Your task to perform on an android device: open app "VLC for Android" Image 0: 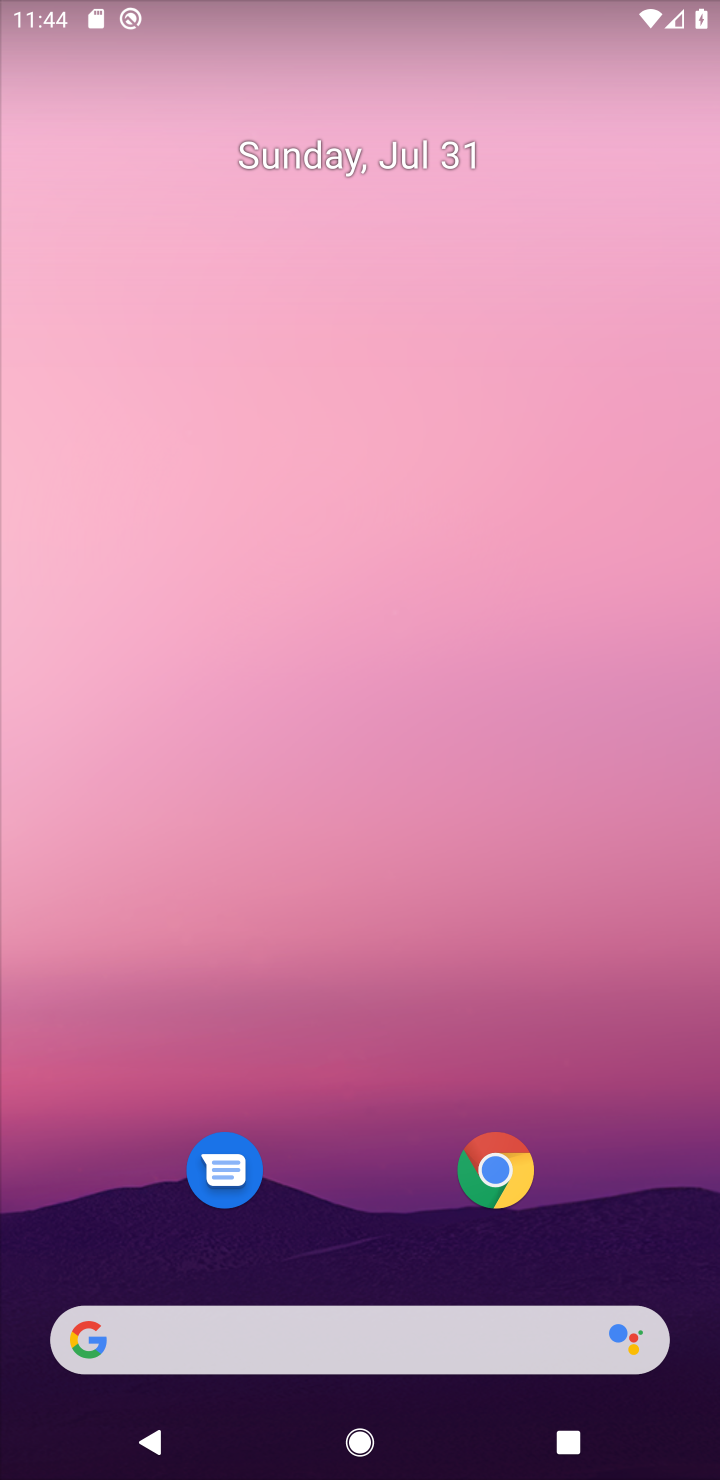
Step 0: drag from (710, 1240) to (447, 173)
Your task to perform on an android device: open app "VLC for Android" Image 1: 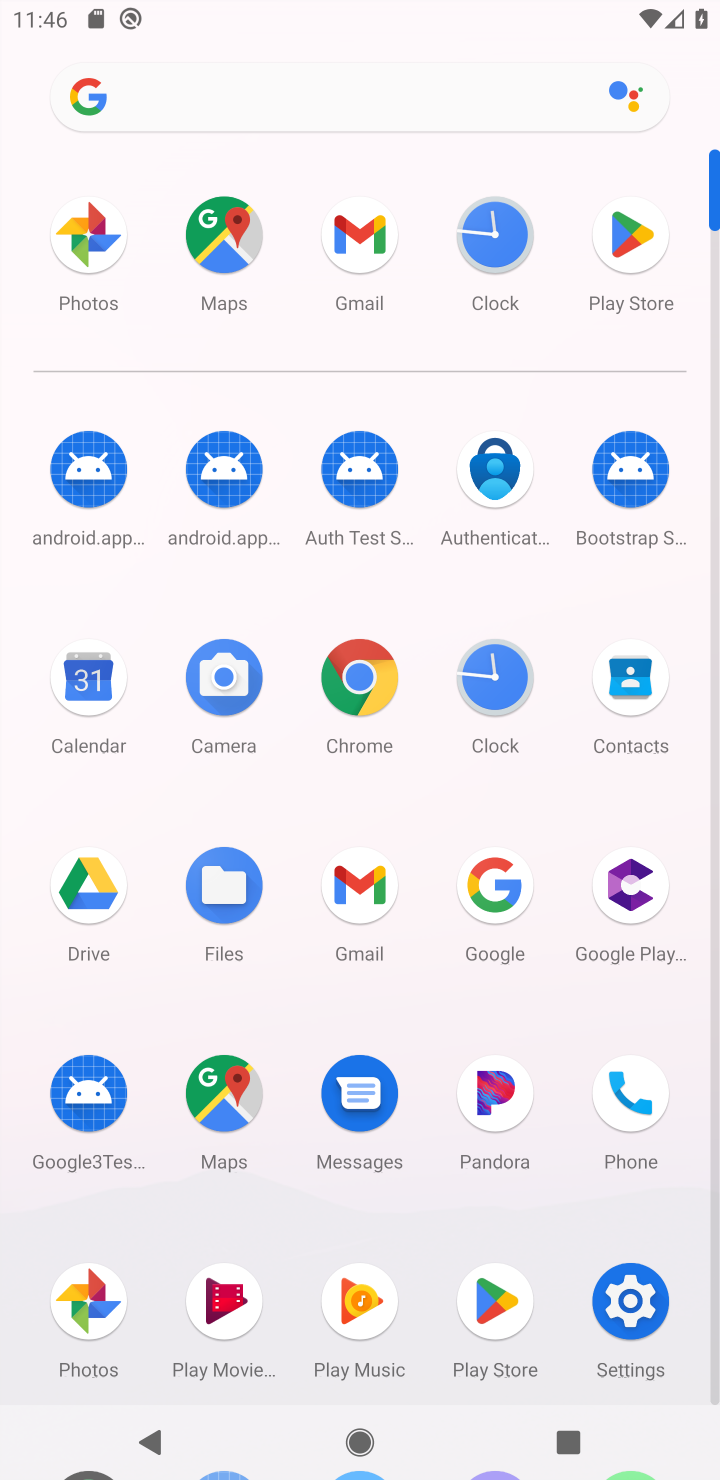
Step 1: click (610, 237)
Your task to perform on an android device: open app "VLC for Android" Image 2: 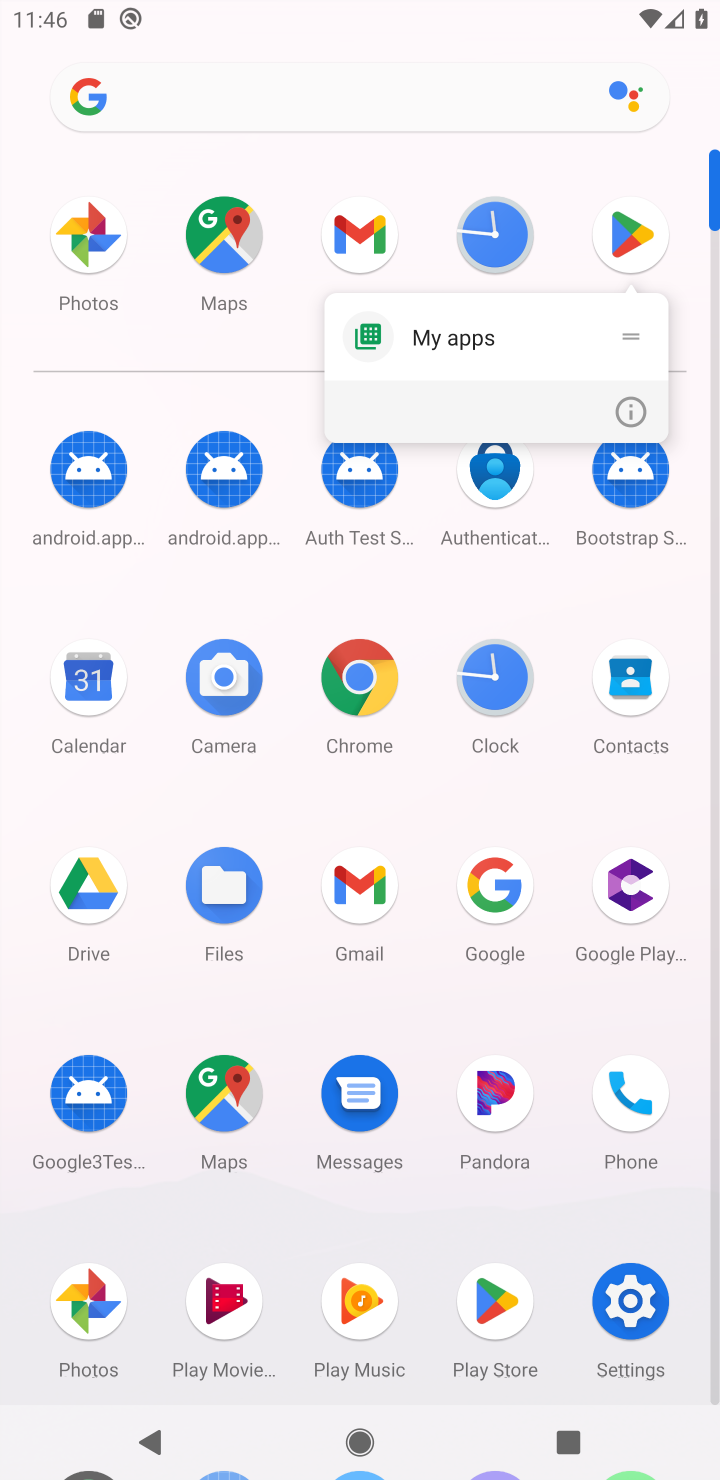
Step 2: click (639, 231)
Your task to perform on an android device: open app "VLC for Android" Image 3: 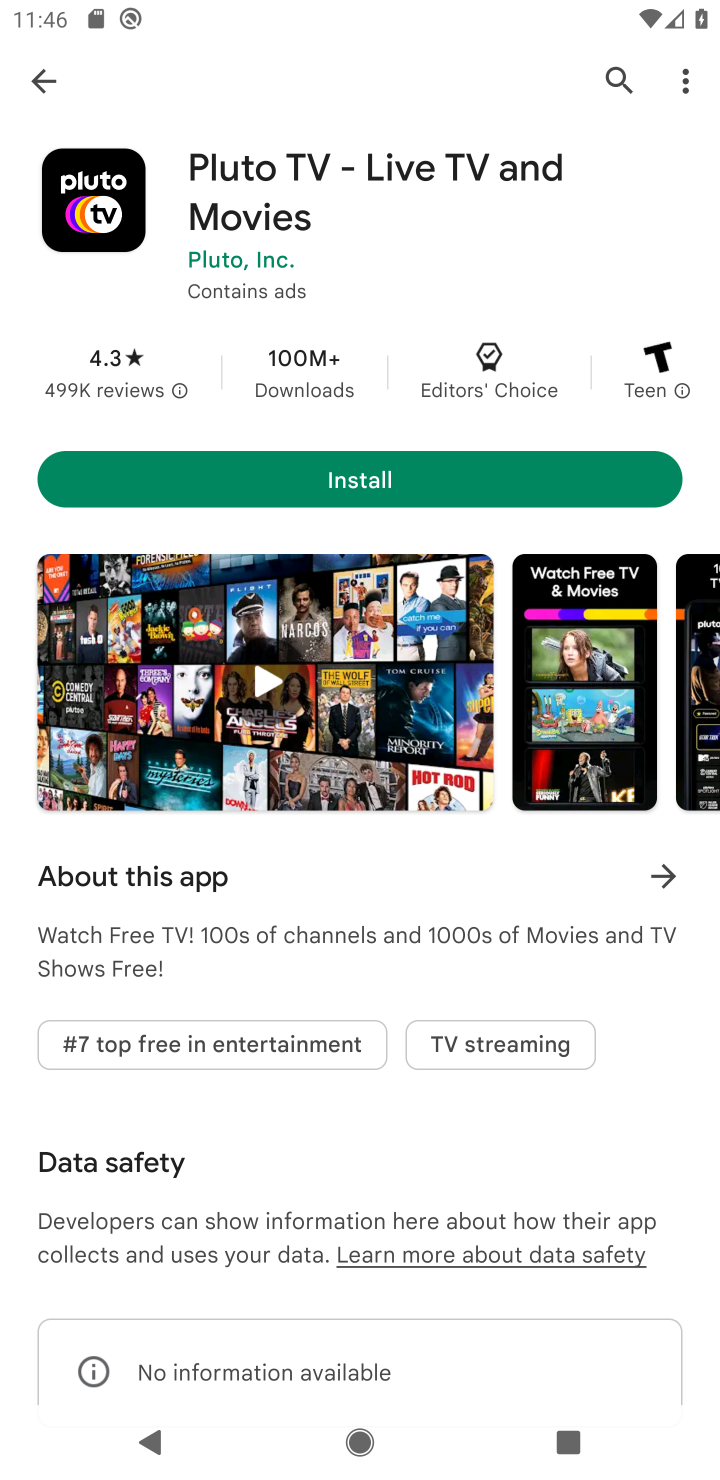
Step 3: press back button
Your task to perform on an android device: open app "VLC for Android" Image 4: 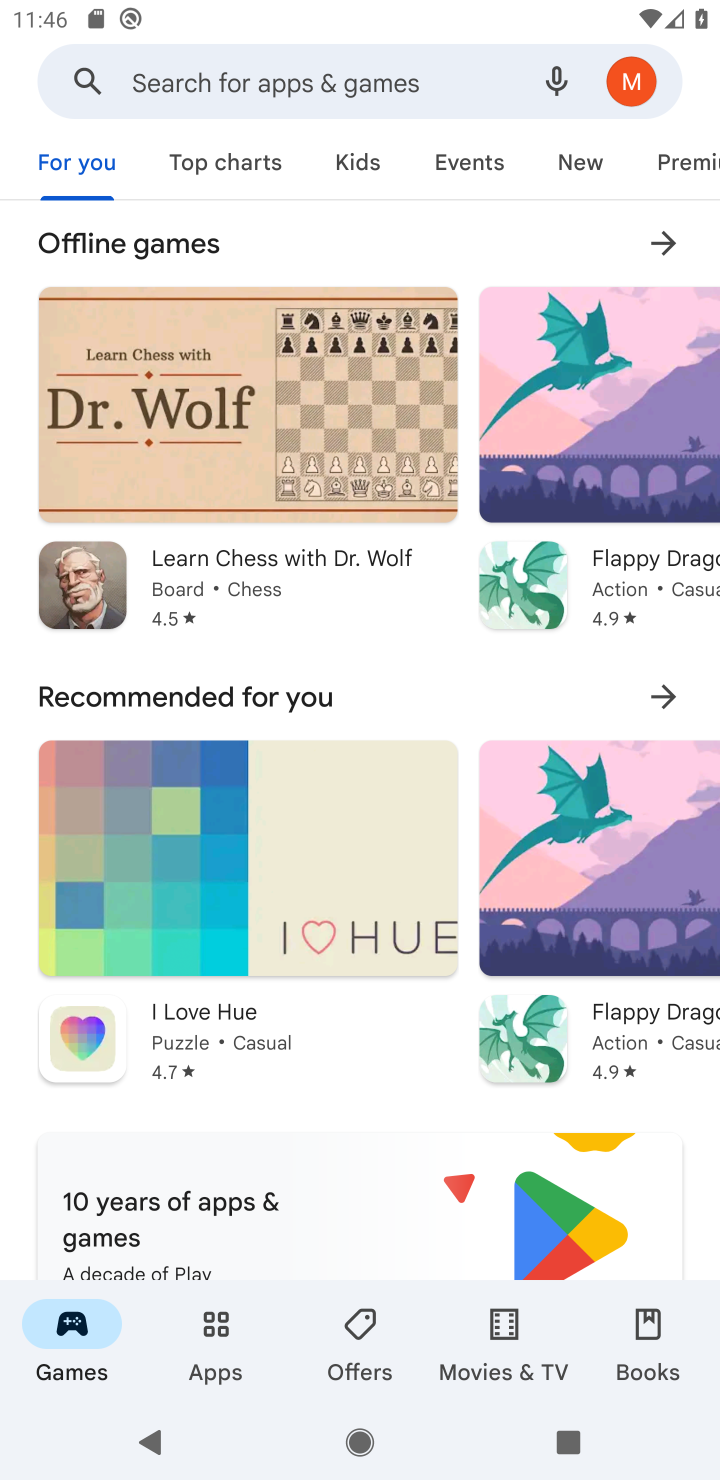
Step 4: click (212, 80)
Your task to perform on an android device: open app "VLC for Android" Image 5: 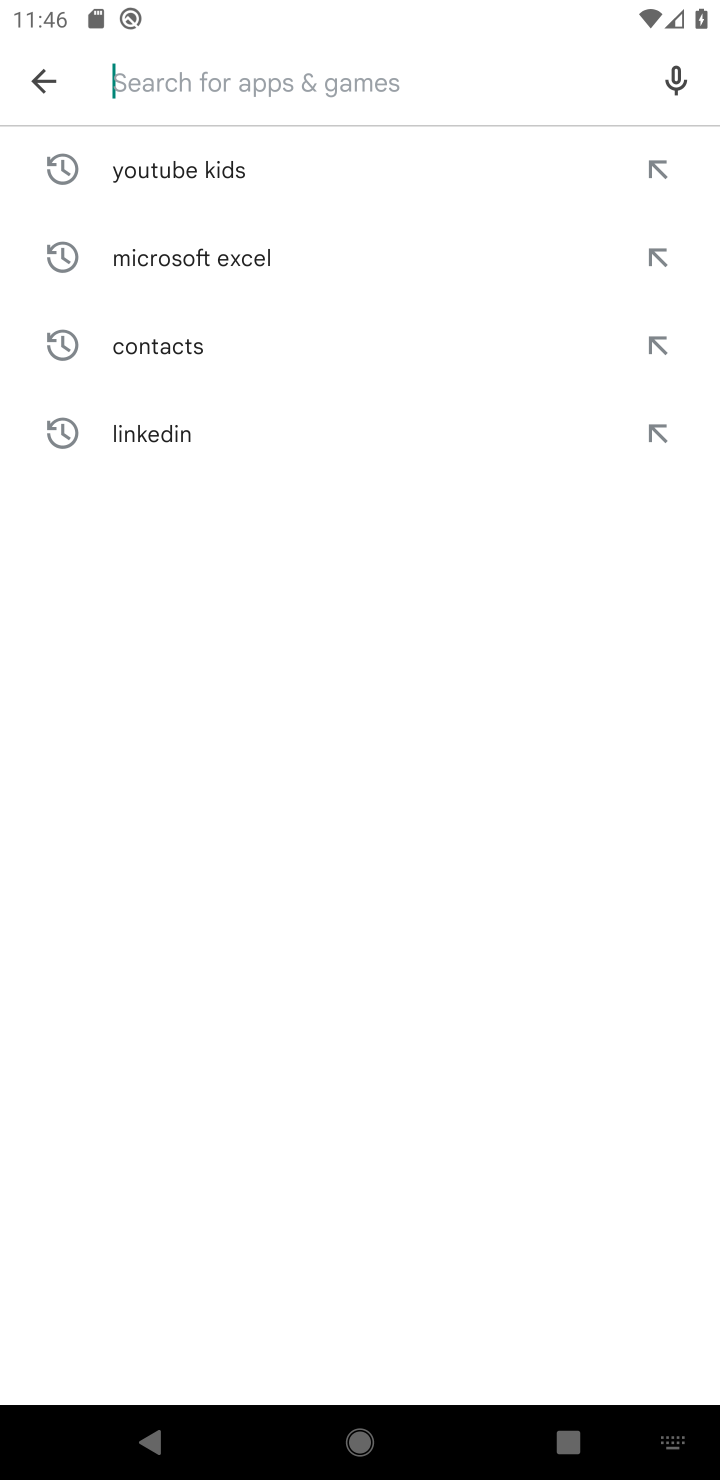
Step 5: type "VLC for Android"
Your task to perform on an android device: open app "VLC for Android" Image 6: 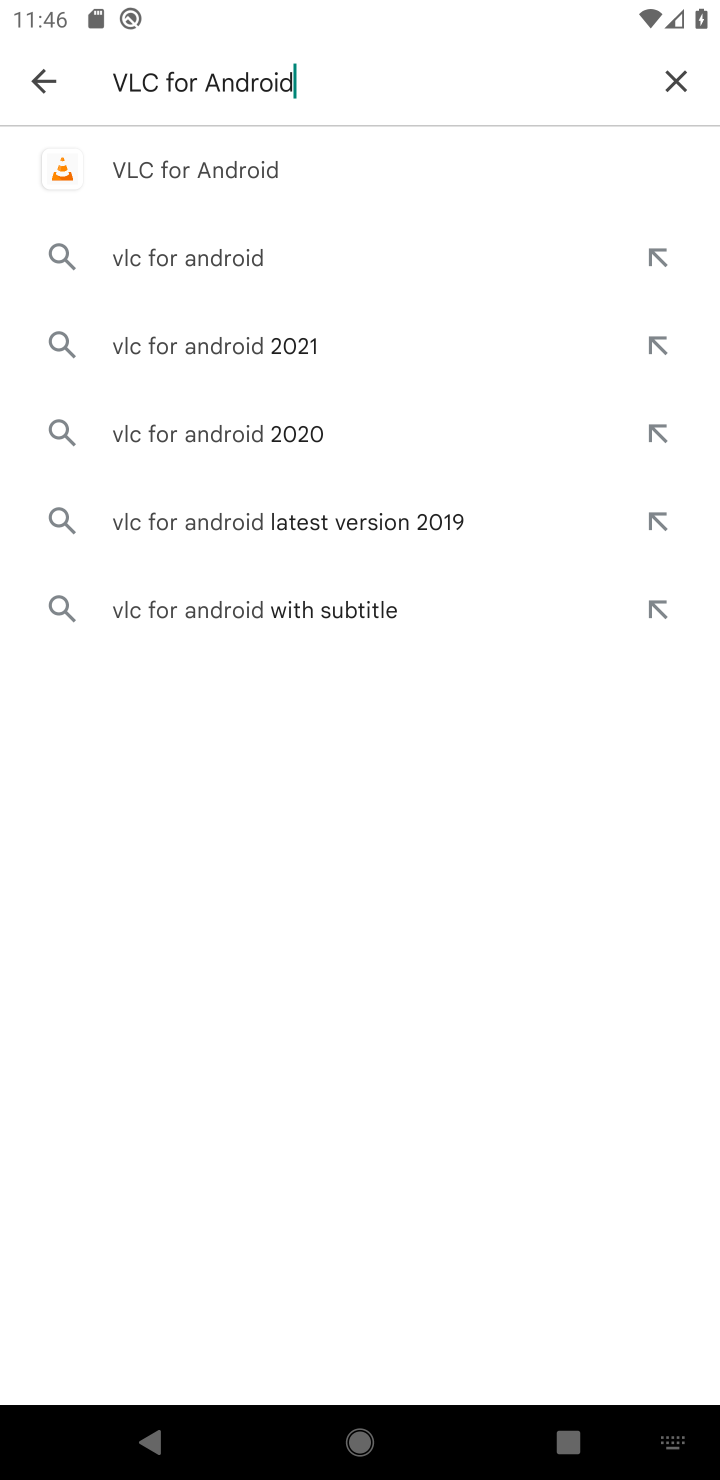
Step 6: click (147, 176)
Your task to perform on an android device: open app "VLC for Android" Image 7: 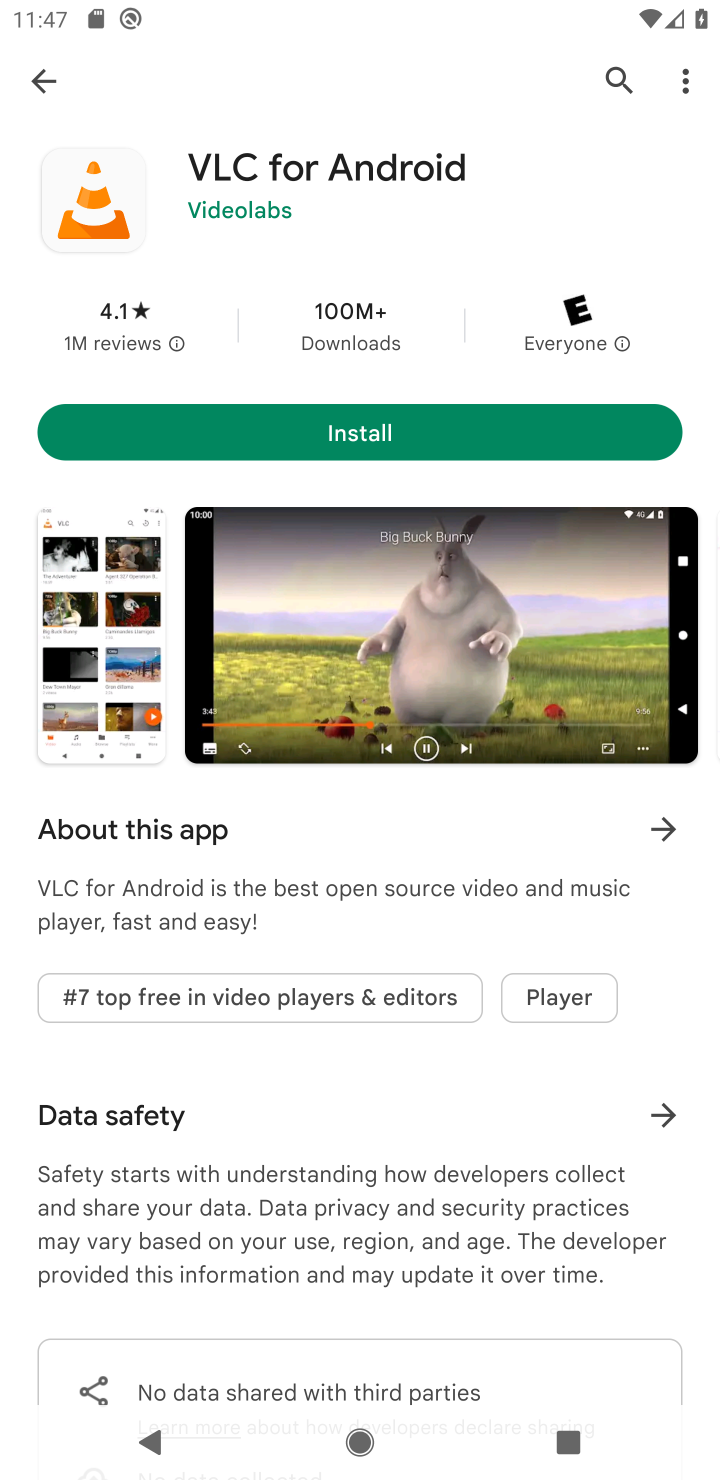
Step 7: task complete